Your task to perform on an android device: change the upload size in google photos Image 0: 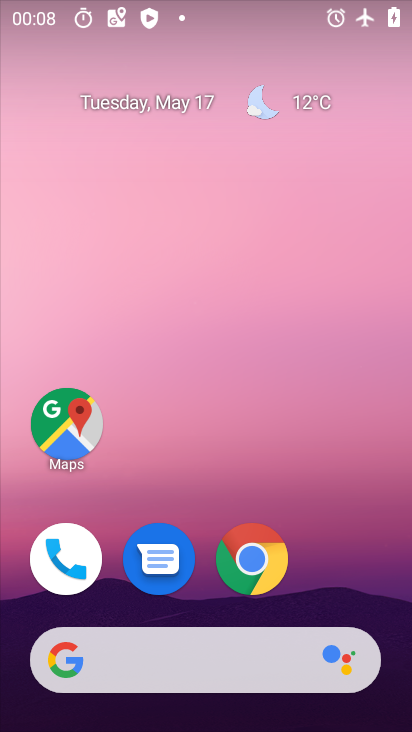
Step 0: drag from (335, 521) to (326, 47)
Your task to perform on an android device: change the upload size in google photos Image 1: 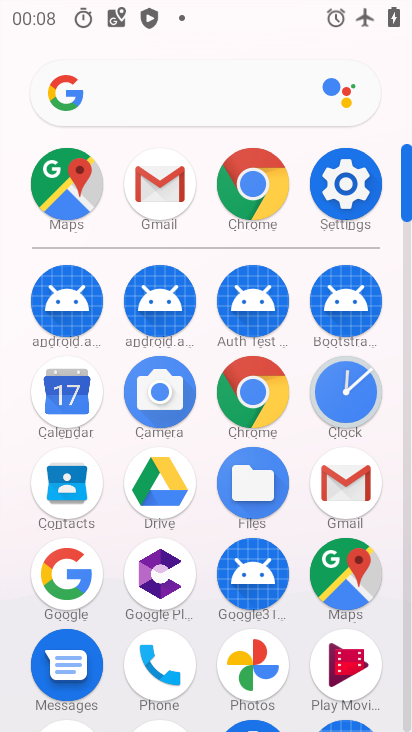
Step 1: click (266, 661)
Your task to perform on an android device: change the upload size in google photos Image 2: 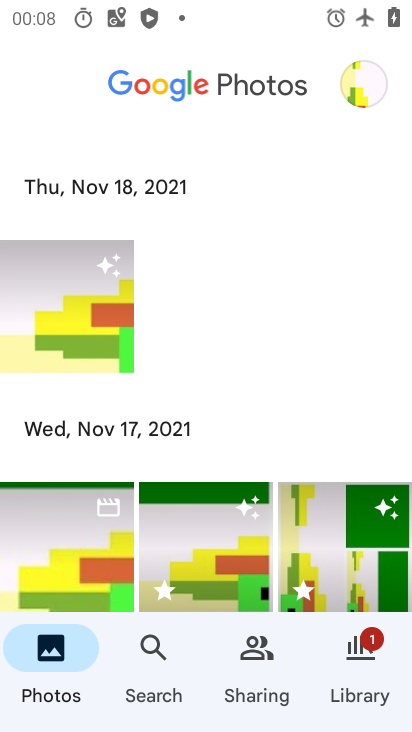
Step 2: click (376, 81)
Your task to perform on an android device: change the upload size in google photos Image 3: 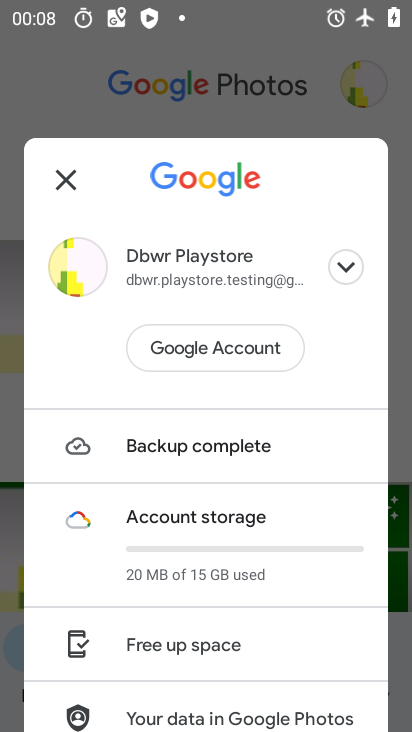
Step 3: drag from (232, 552) to (288, 145)
Your task to perform on an android device: change the upload size in google photos Image 4: 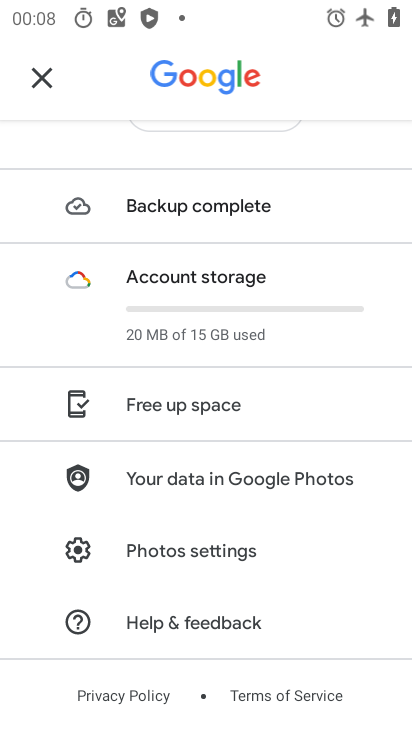
Step 4: click (203, 540)
Your task to perform on an android device: change the upload size in google photos Image 5: 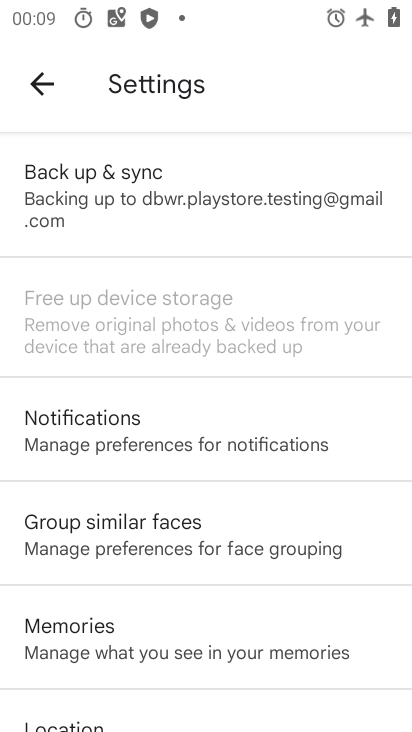
Step 5: click (189, 206)
Your task to perform on an android device: change the upload size in google photos Image 6: 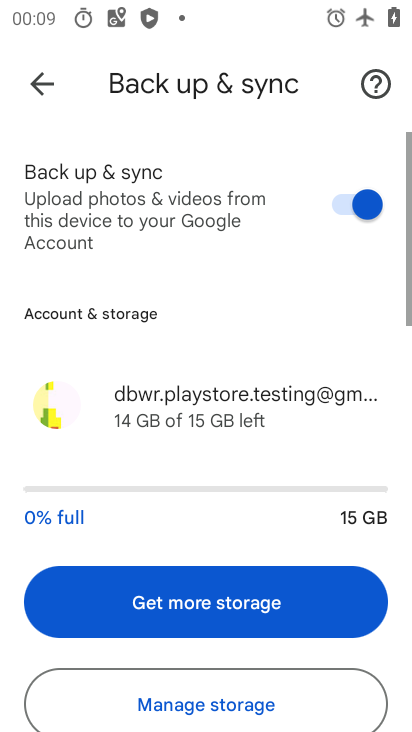
Step 6: drag from (240, 554) to (230, 110)
Your task to perform on an android device: change the upload size in google photos Image 7: 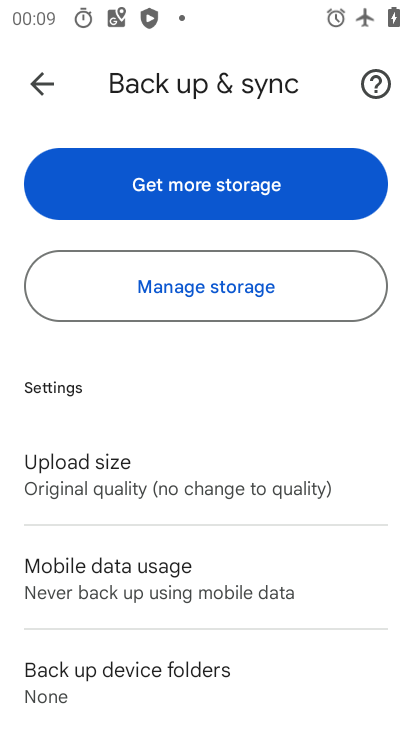
Step 7: click (240, 476)
Your task to perform on an android device: change the upload size in google photos Image 8: 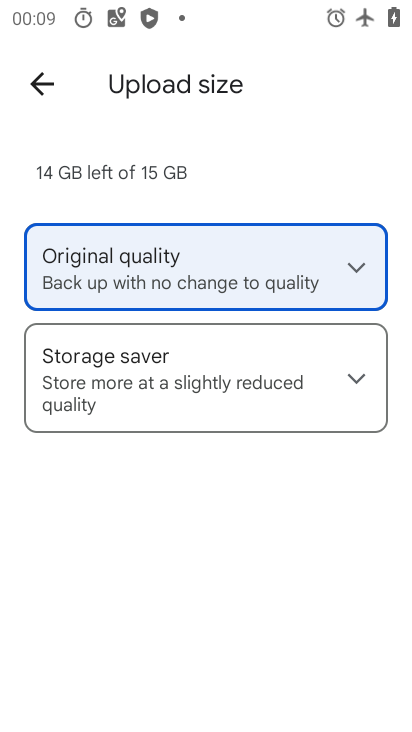
Step 8: click (208, 371)
Your task to perform on an android device: change the upload size in google photos Image 9: 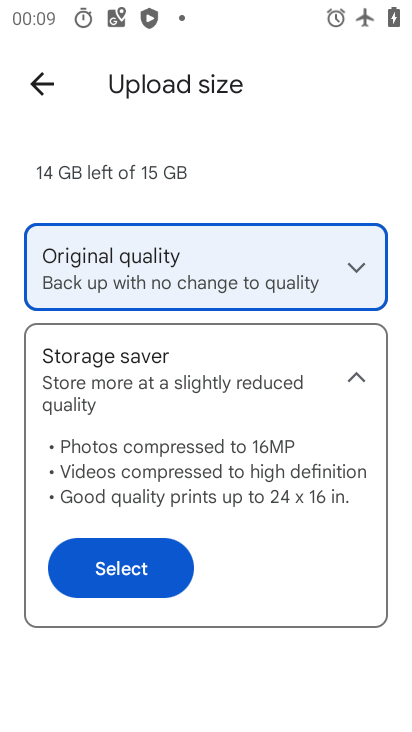
Step 9: click (126, 555)
Your task to perform on an android device: change the upload size in google photos Image 10: 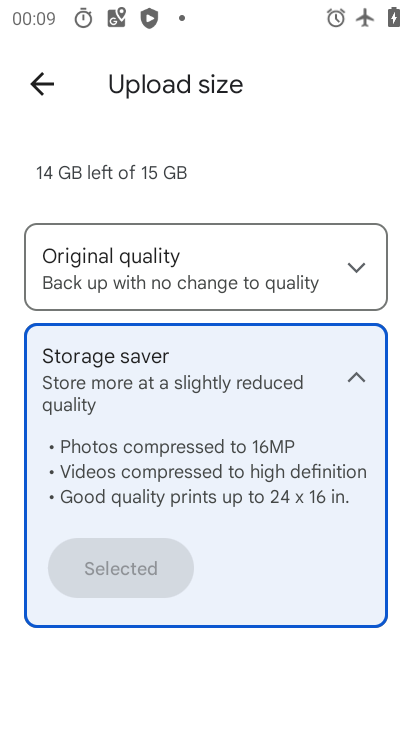
Step 10: task complete